Your task to perform on an android device: Open calendar and show me the first week of next month Image 0: 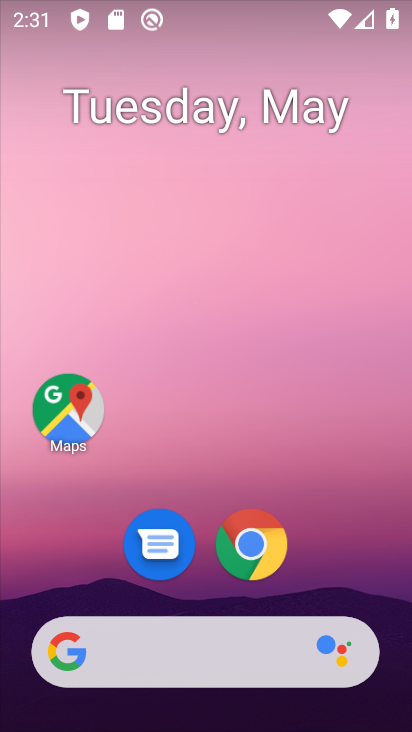
Step 0: drag from (331, 581) to (302, 118)
Your task to perform on an android device: Open calendar and show me the first week of next month Image 1: 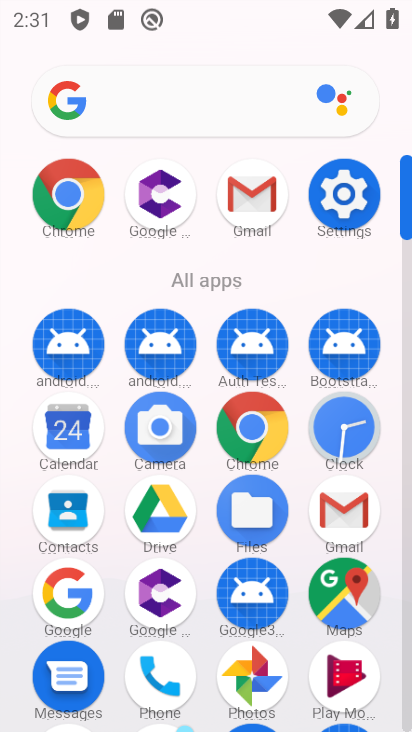
Step 1: click (69, 429)
Your task to perform on an android device: Open calendar and show me the first week of next month Image 2: 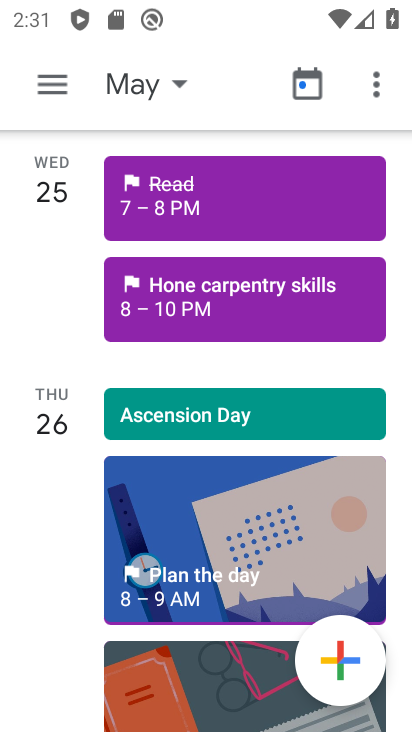
Step 2: click (310, 82)
Your task to perform on an android device: Open calendar and show me the first week of next month Image 3: 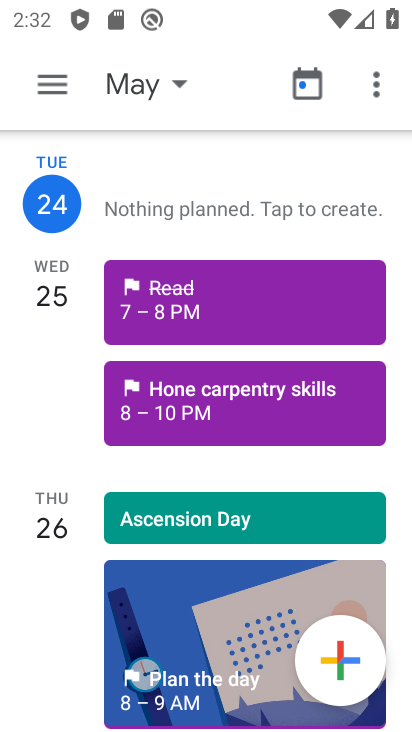
Step 3: click (173, 82)
Your task to perform on an android device: Open calendar and show me the first week of next month Image 4: 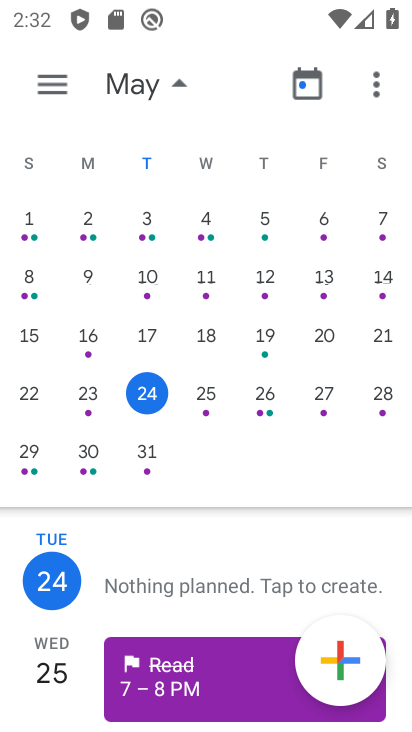
Step 4: drag from (352, 432) to (6, 241)
Your task to perform on an android device: Open calendar and show me the first week of next month Image 5: 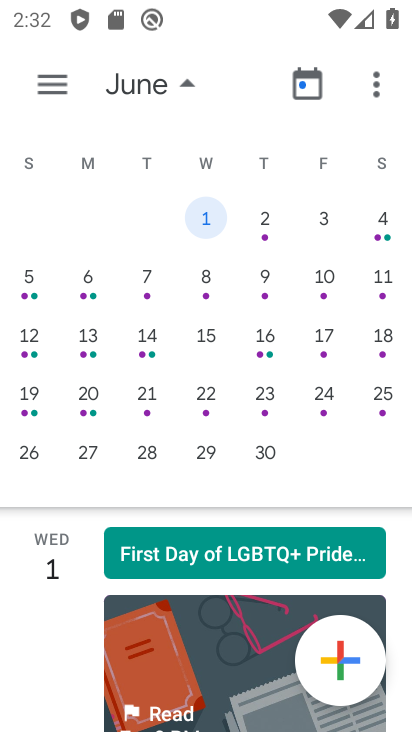
Step 5: click (83, 282)
Your task to perform on an android device: Open calendar and show me the first week of next month Image 6: 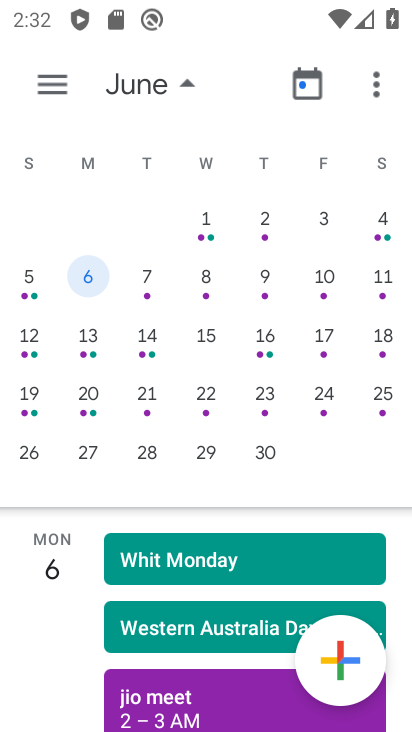
Step 6: click (51, 88)
Your task to perform on an android device: Open calendar and show me the first week of next month Image 7: 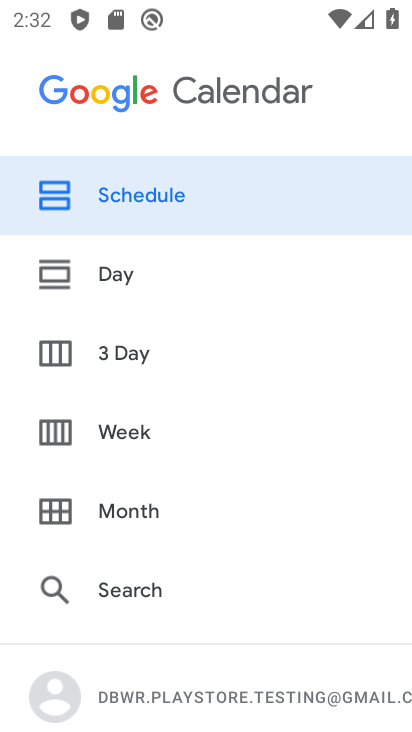
Step 7: click (133, 441)
Your task to perform on an android device: Open calendar and show me the first week of next month Image 8: 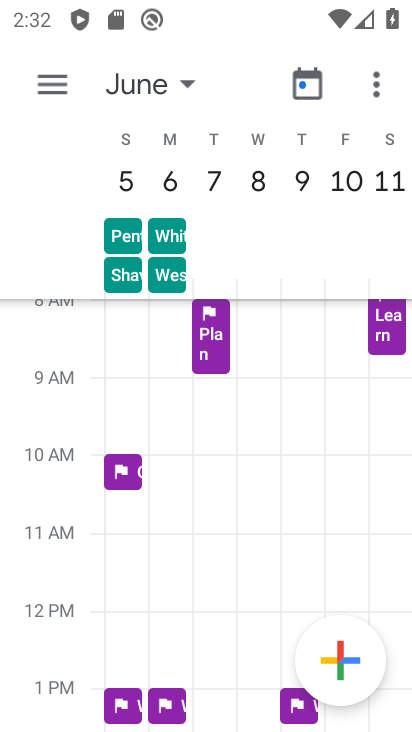
Step 8: task complete